Your task to perform on an android device: Go to accessibility settings Image 0: 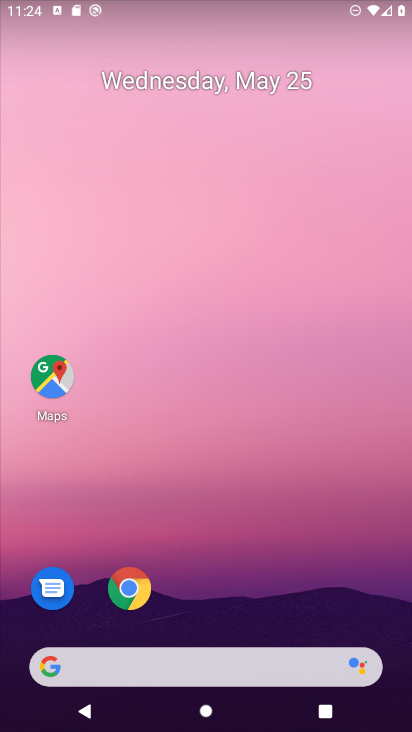
Step 0: drag from (21, 584) to (395, 54)
Your task to perform on an android device: Go to accessibility settings Image 1: 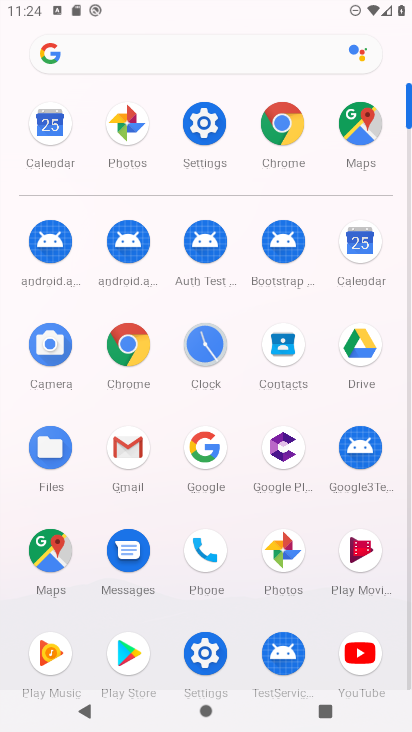
Step 1: click (204, 133)
Your task to perform on an android device: Go to accessibility settings Image 2: 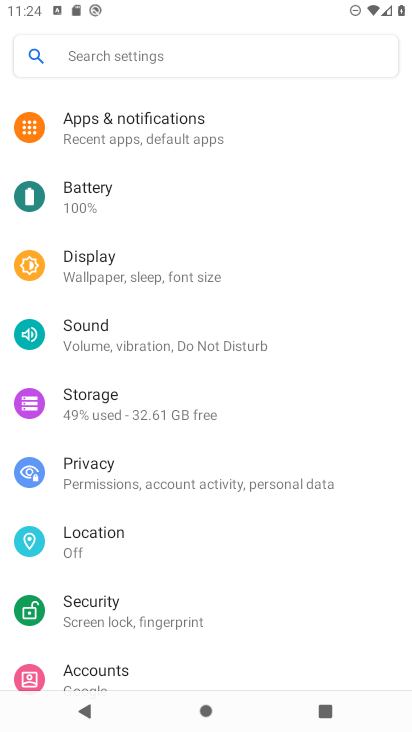
Step 2: task complete